Your task to perform on an android device: Search for sushi restaurants on Maps Image 0: 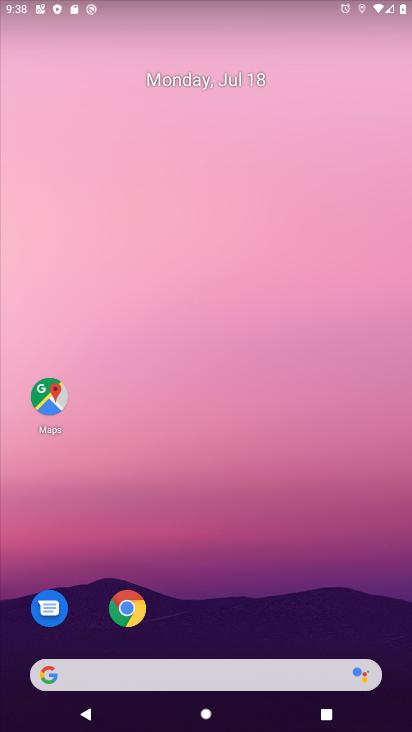
Step 0: click (50, 393)
Your task to perform on an android device: Search for sushi restaurants on Maps Image 1: 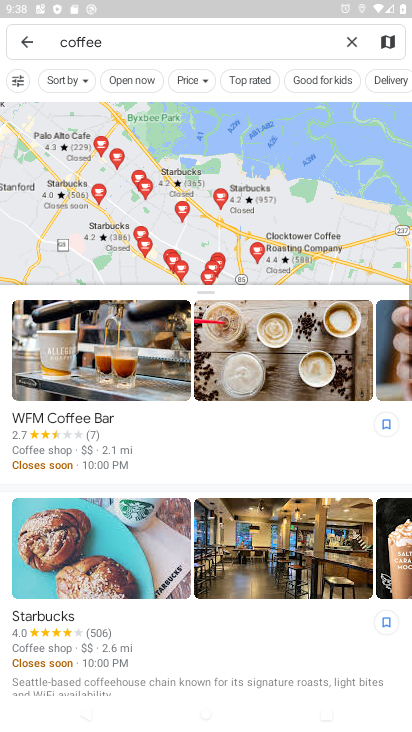
Step 1: click (355, 43)
Your task to perform on an android device: Search for sushi restaurants on Maps Image 2: 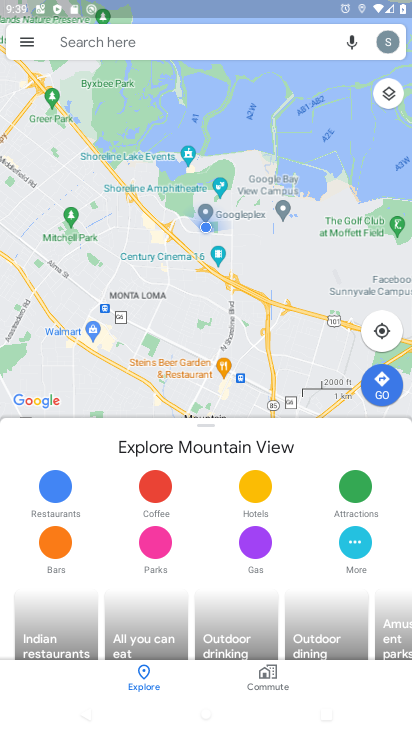
Step 2: click (94, 35)
Your task to perform on an android device: Search for sushi restaurants on Maps Image 3: 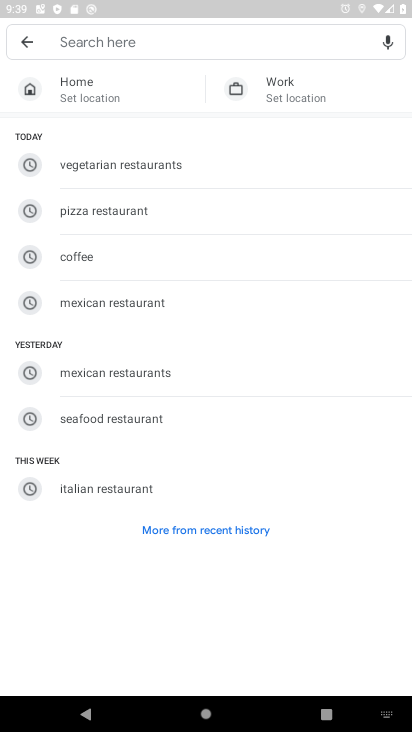
Step 3: type "sushi restaurants"
Your task to perform on an android device: Search for sushi restaurants on Maps Image 4: 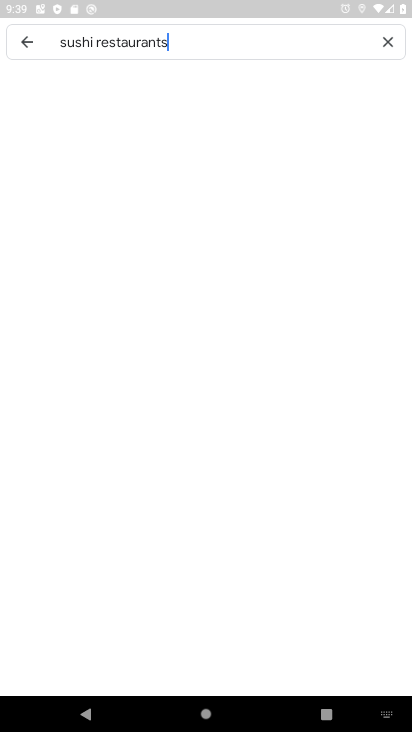
Step 4: type ""
Your task to perform on an android device: Search for sushi restaurants on Maps Image 5: 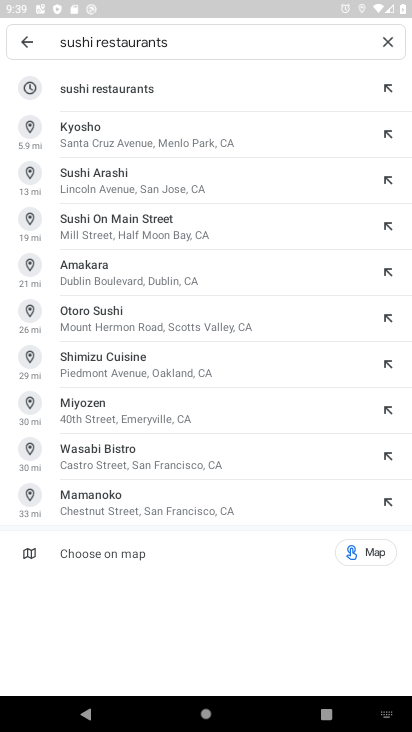
Step 5: click (79, 87)
Your task to perform on an android device: Search for sushi restaurants on Maps Image 6: 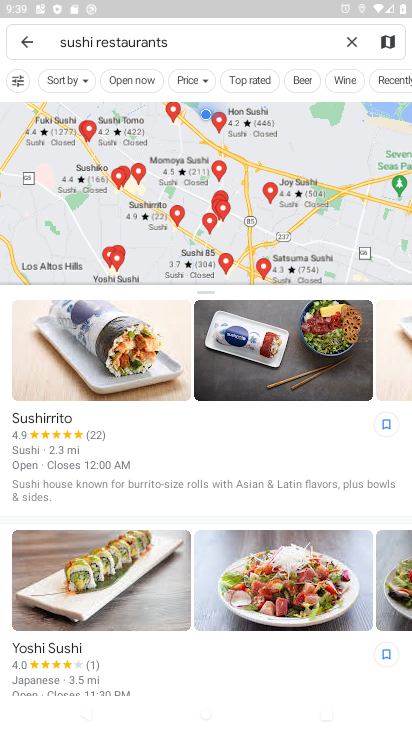
Step 6: task complete